Your task to perform on an android device: Go to location settings Image 0: 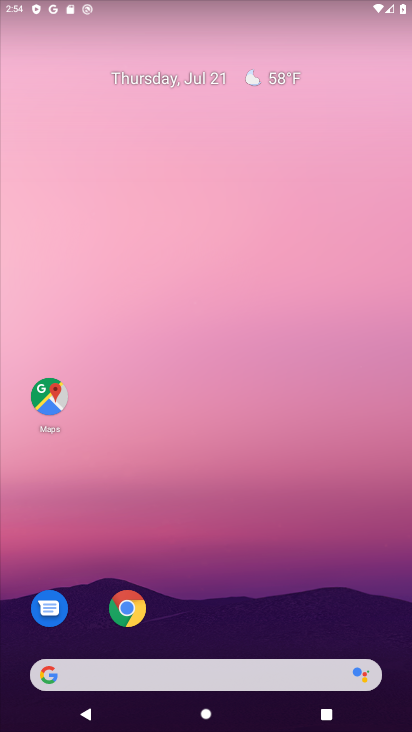
Step 0: drag from (234, 636) to (271, 97)
Your task to perform on an android device: Go to location settings Image 1: 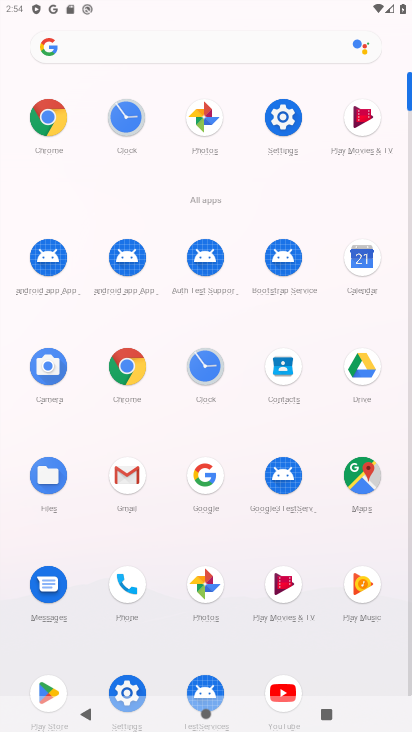
Step 1: click (280, 115)
Your task to perform on an android device: Go to location settings Image 2: 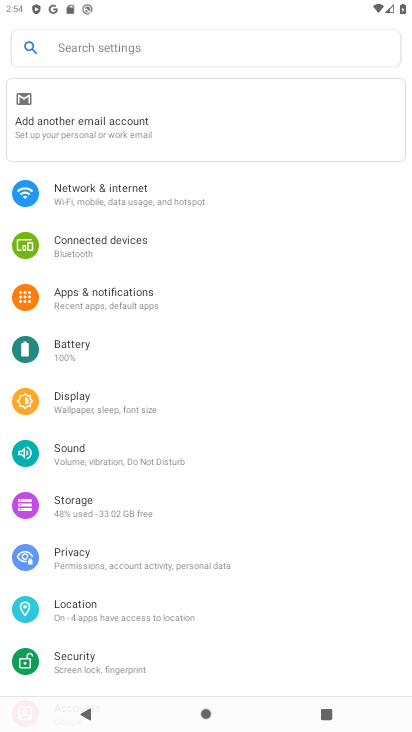
Step 2: click (87, 608)
Your task to perform on an android device: Go to location settings Image 3: 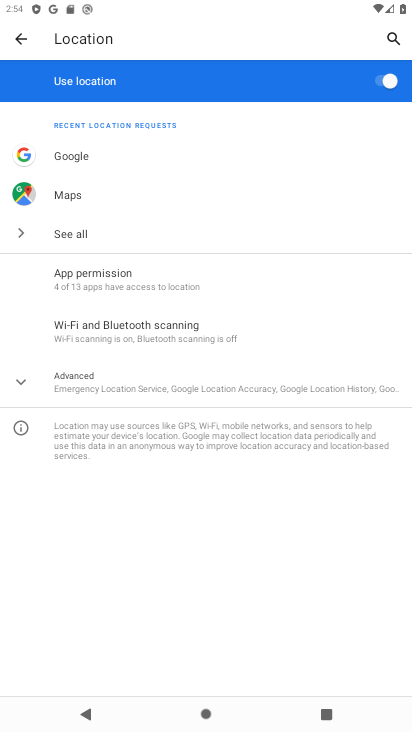
Step 3: click (37, 393)
Your task to perform on an android device: Go to location settings Image 4: 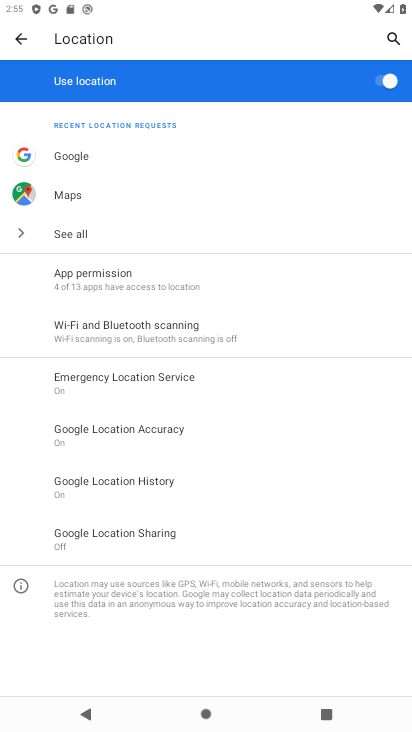
Step 4: task complete